Your task to perform on an android device: Do I have any events this weekend? Image 0: 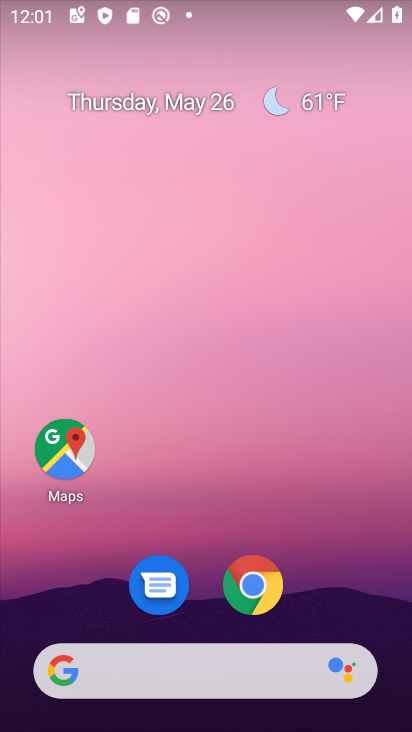
Step 0: drag from (222, 516) to (206, 25)
Your task to perform on an android device: Do I have any events this weekend? Image 1: 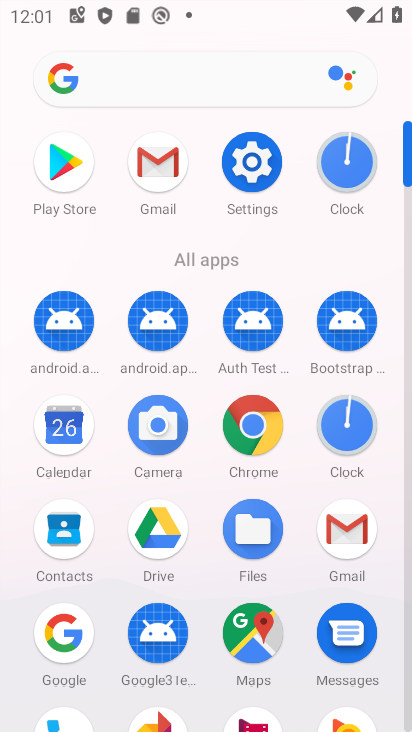
Step 1: click (76, 429)
Your task to perform on an android device: Do I have any events this weekend? Image 2: 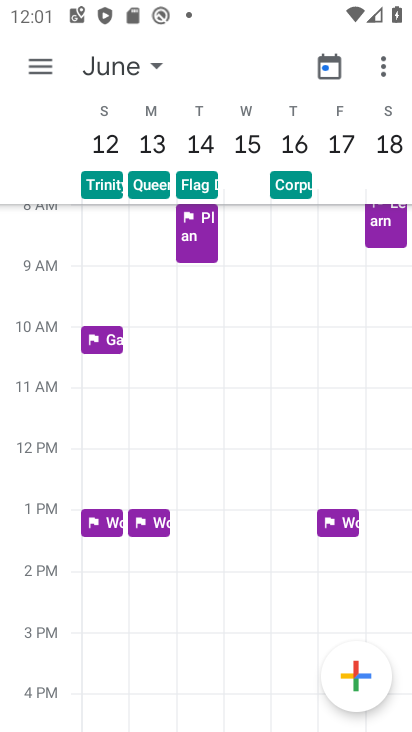
Step 2: drag from (87, 418) to (393, 400)
Your task to perform on an android device: Do I have any events this weekend? Image 3: 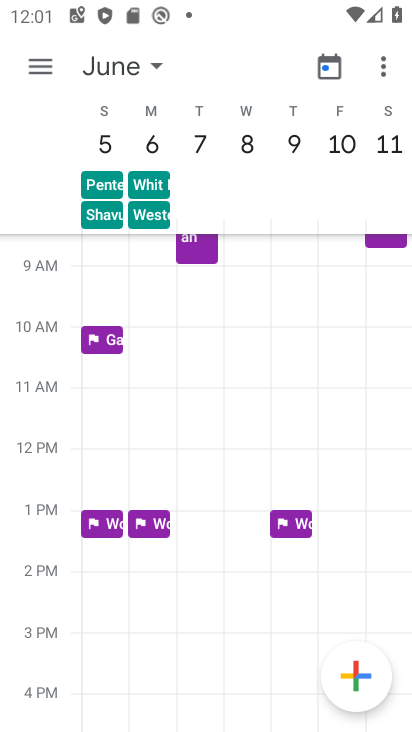
Step 3: drag from (92, 464) to (386, 450)
Your task to perform on an android device: Do I have any events this weekend? Image 4: 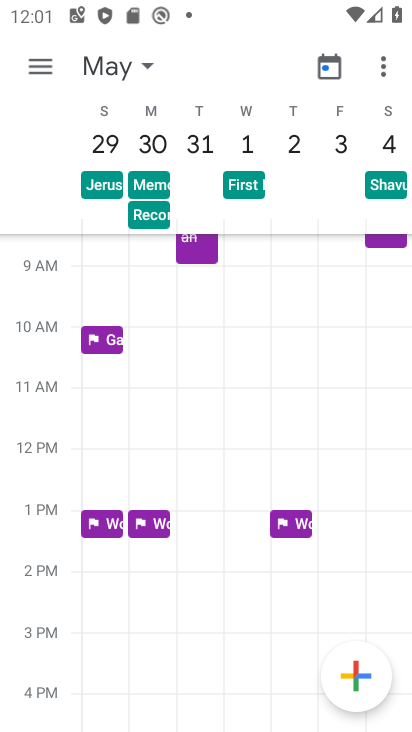
Step 4: drag from (132, 449) to (407, 325)
Your task to perform on an android device: Do I have any events this weekend? Image 5: 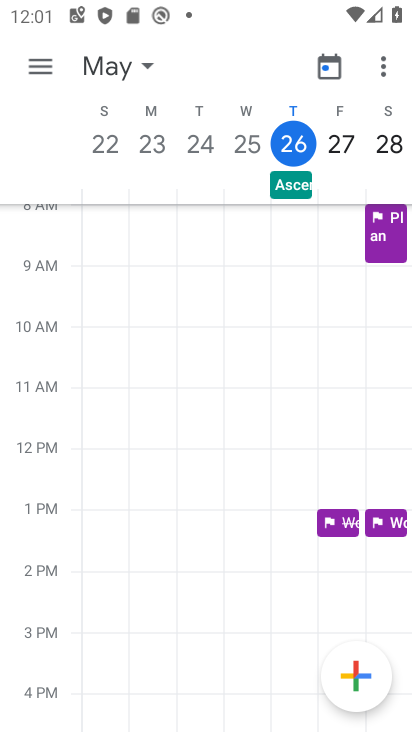
Step 5: click (381, 133)
Your task to perform on an android device: Do I have any events this weekend? Image 6: 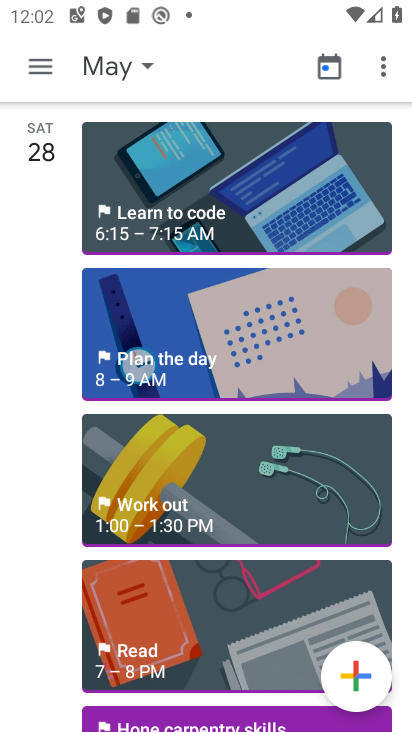
Step 6: task complete